Your task to perform on an android device: open a bookmark in the chrome app Image 0: 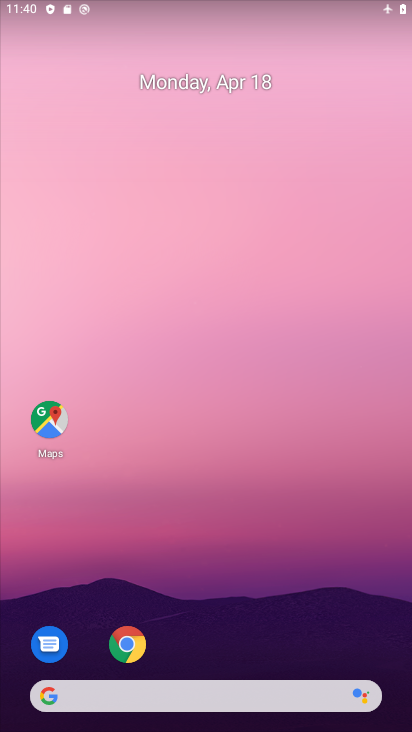
Step 0: click (133, 647)
Your task to perform on an android device: open a bookmark in the chrome app Image 1: 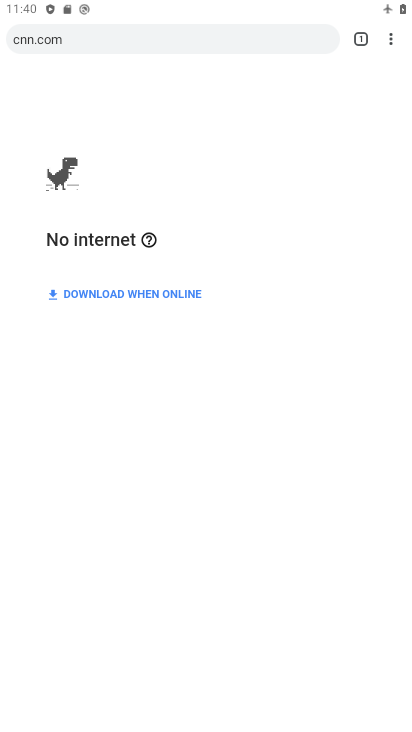
Step 1: click (387, 37)
Your task to perform on an android device: open a bookmark in the chrome app Image 2: 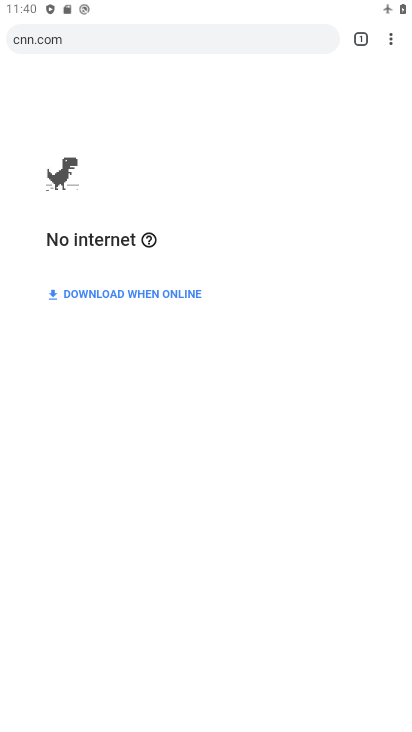
Step 2: task complete